Your task to perform on an android device: Do I have any events today? Image 0: 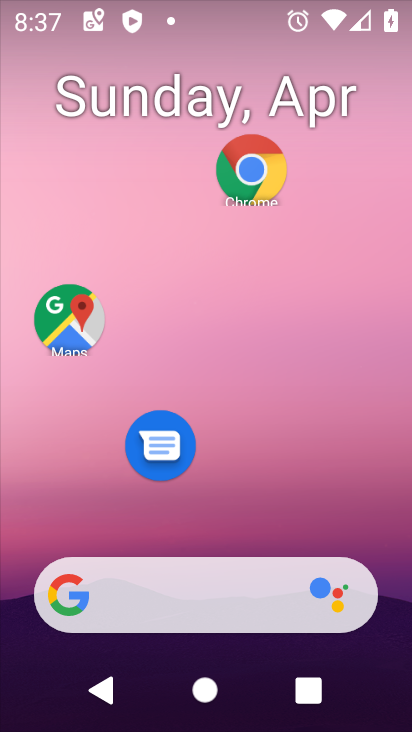
Step 0: drag from (291, 109) to (287, 67)
Your task to perform on an android device: Do I have any events today? Image 1: 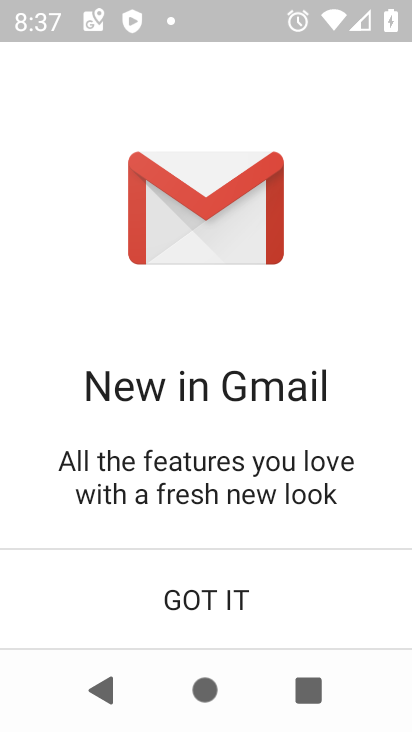
Step 1: press home button
Your task to perform on an android device: Do I have any events today? Image 2: 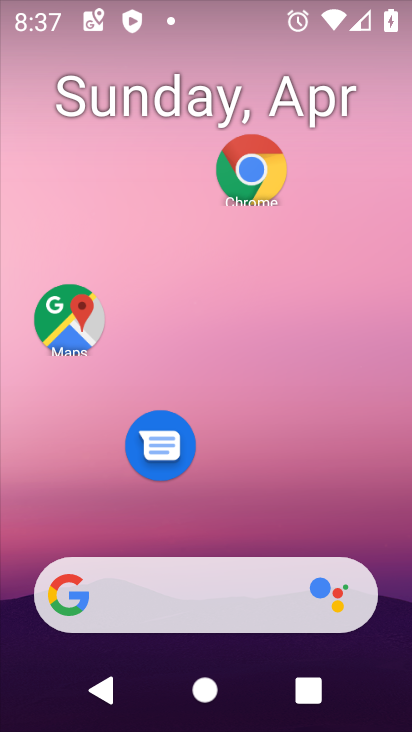
Step 2: drag from (248, 465) to (270, 47)
Your task to perform on an android device: Do I have any events today? Image 3: 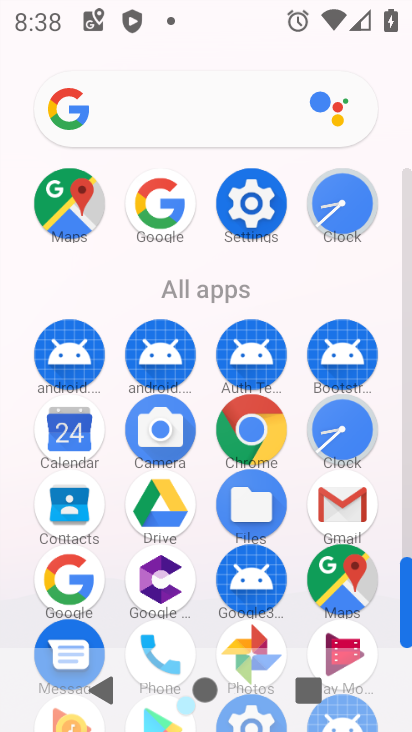
Step 3: click (76, 434)
Your task to perform on an android device: Do I have any events today? Image 4: 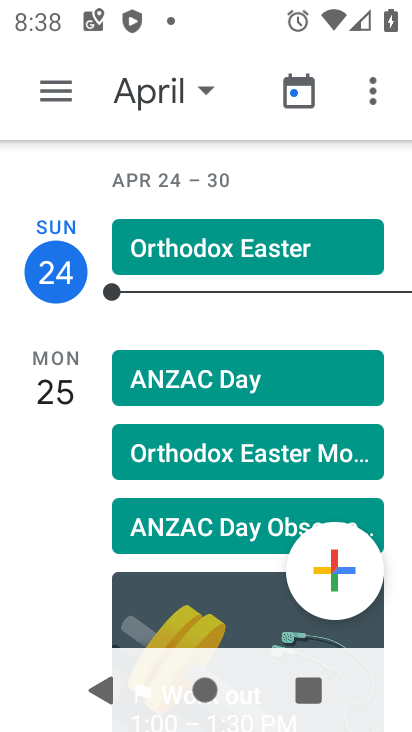
Step 4: click (196, 90)
Your task to perform on an android device: Do I have any events today? Image 5: 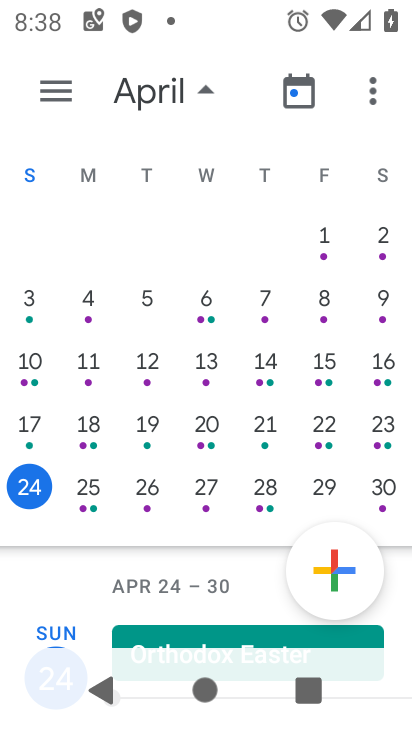
Step 5: click (35, 483)
Your task to perform on an android device: Do I have any events today? Image 6: 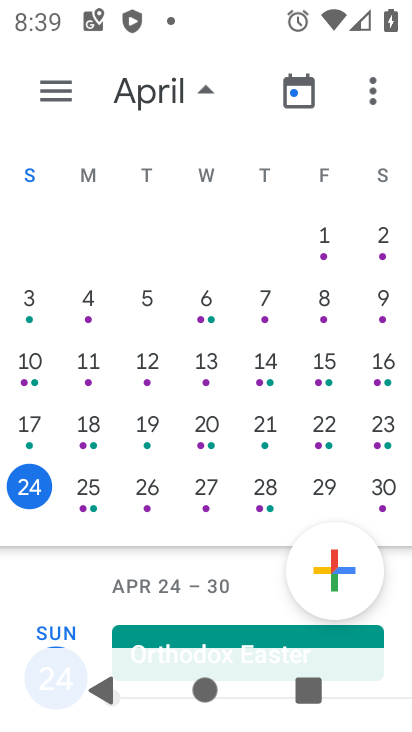
Step 6: task complete